Your task to perform on an android device: Open Amazon Image 0: 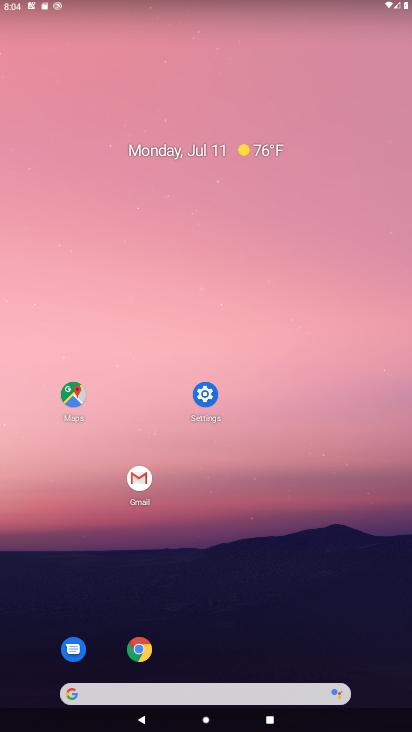
Step 0: click (142, 639)
Your task to perform on an android device: Open Amazon Image 1: 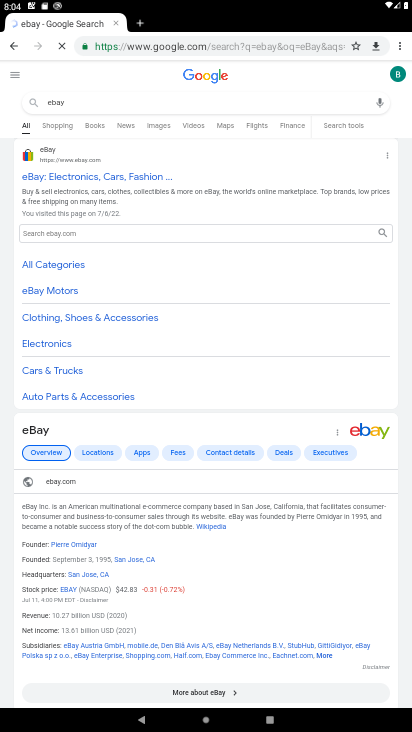
Step 1: click (329, 47)
Your task to perform on an android device: Open Amazon Image 2: 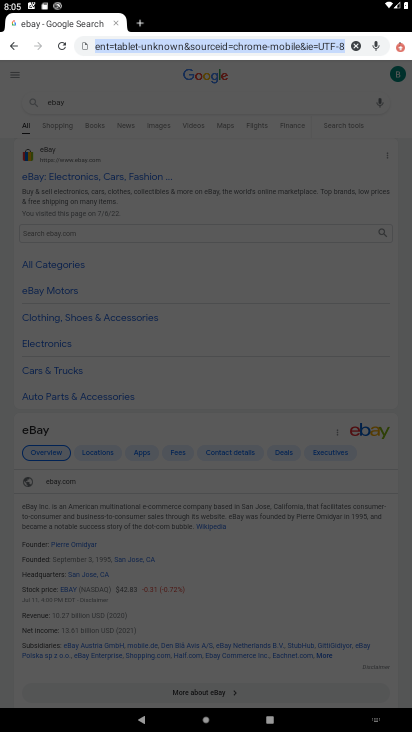
Step 2: click (354, 46)
Your task to perform on an android device: Open Amazon Image 3: 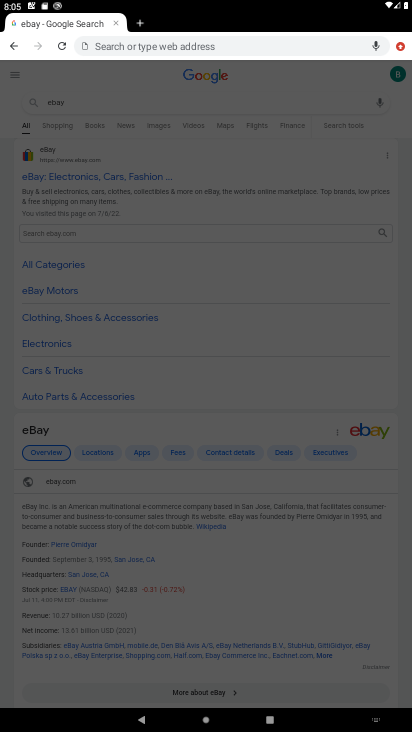
Step 3: type "Amazon"
Your task to perform on an android device: Open Amazon Image 4: 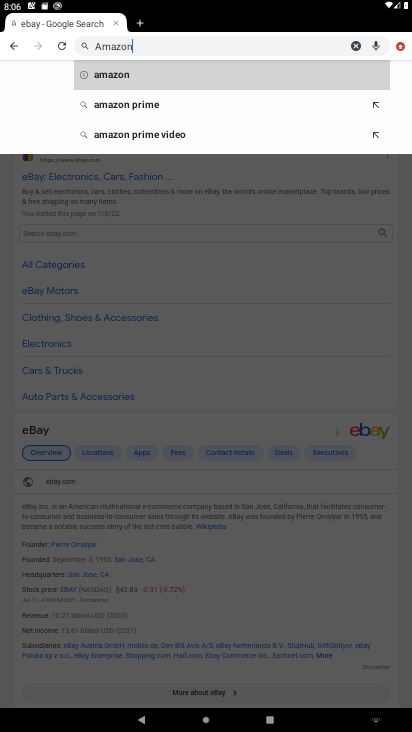
Step 4: click (132, 68)
Your task to perform on an android device: Open Amazon Image 5: 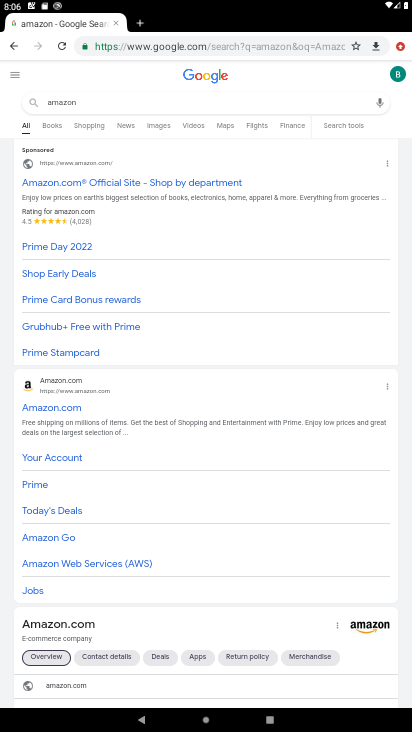
Step 5: task complete